Your task to perform on an android device: Open calendar and show me the first week of next month Image 0: 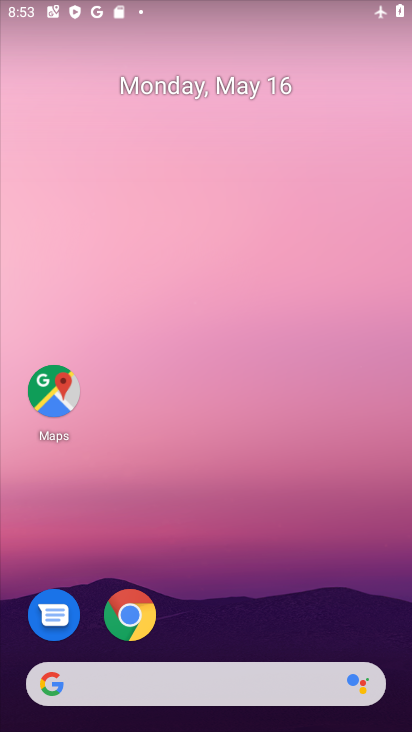
Step 0: drag from (142, 730) to (247, 89)
Your task to perform on an android device: Open calendar and show me the first week of next month Image 1: 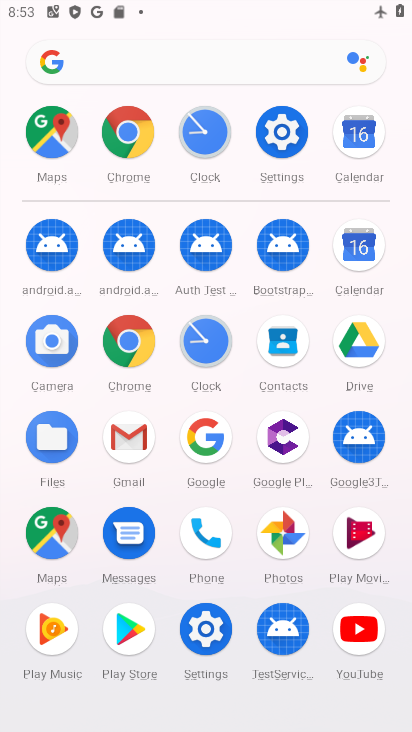
Step 1: click (365, 258)
Your task to perform on an android device: Open calendar and show me the first week of next month Image 2: 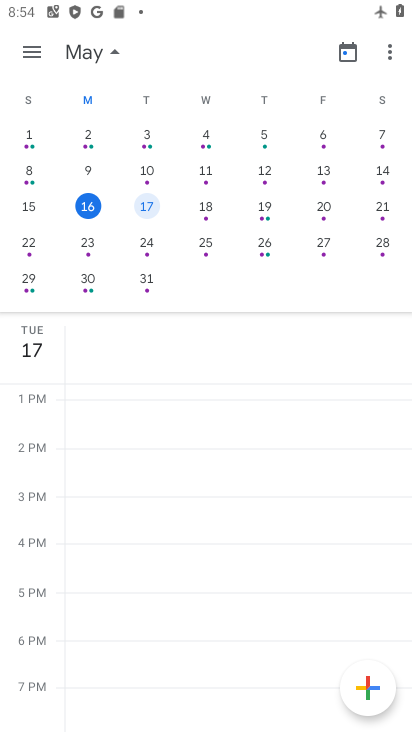
Step 2: drag from (390, 135) to (16, 98)
Your task to perform on an android device: Open calendar and show me the first week of next month Image 3: 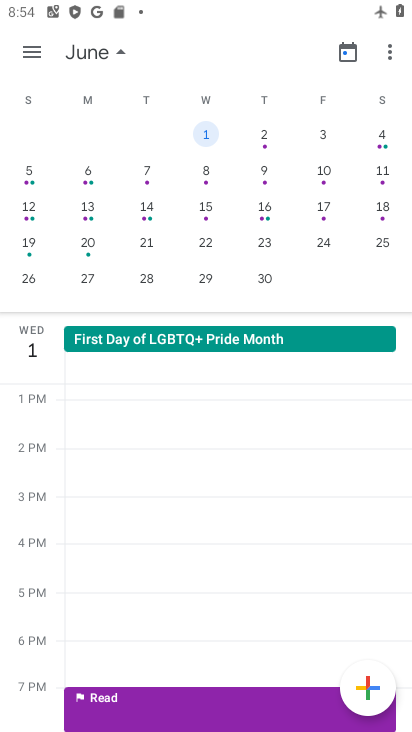
Step 3: click (260, 132)
Your task to perform on an android device: Open calendar and show me the first week of next month Image 4: 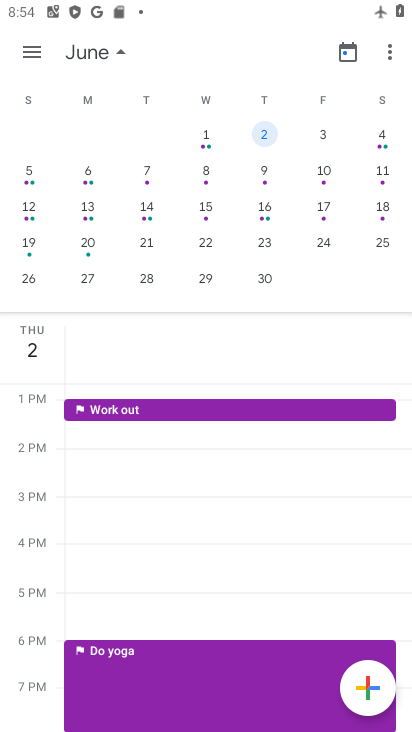
Step 4: click (320, 136)
Your task to perform on an android device: Open calendar and show me the first week of next month Image 5: 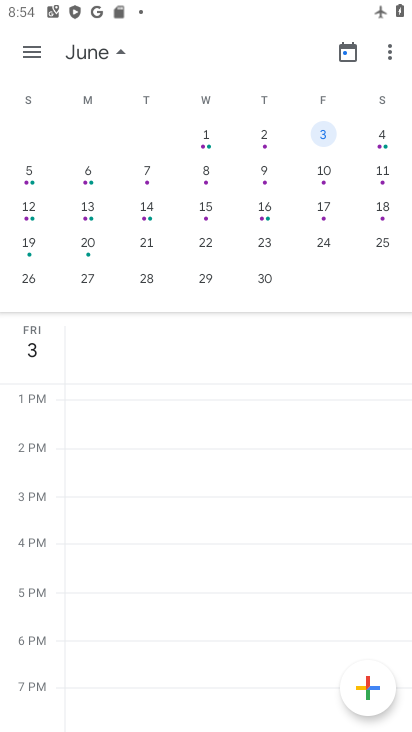
Step 5: task complete